Your task to perform on an android device: choose inbox layout in the gmail app Image 0: 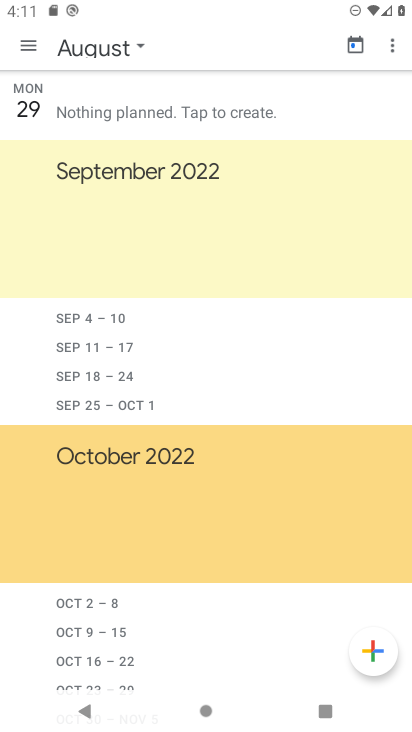
Step 0: press home button
Your task to perform on an android device: choose inbox layout in the gmail app Image 1: 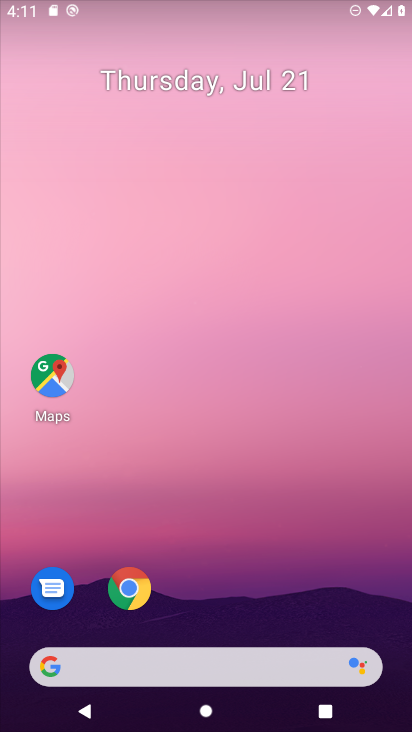
Step 1: drag from (215, 607) to (193, 10)
Your task to perform on an android device: choose inbox layout in the gmail app Image 2: 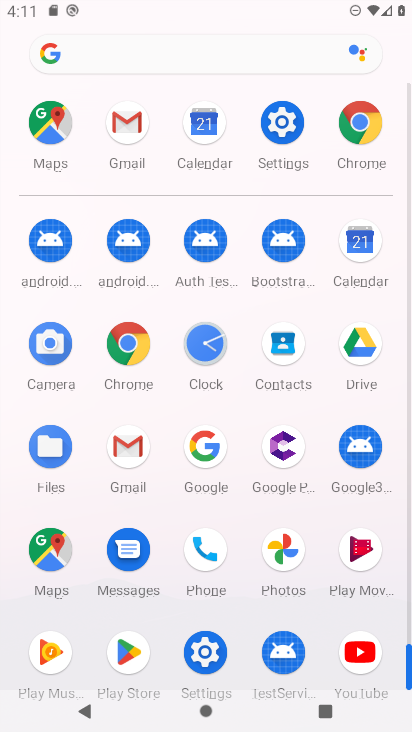
Step 2: click (136, 464)
Your task to perform on an android device: choose inbox layout in the gmail app Image 3: 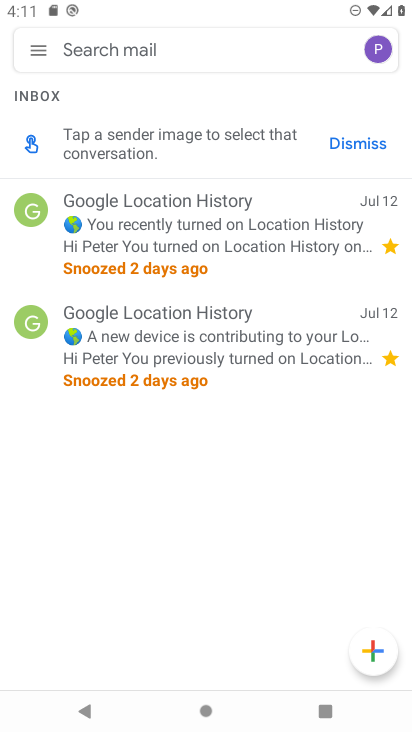
Step 3: click (35, 39)
Your task to perform on an android device: choose inbox layout in the gmail app Image 4: 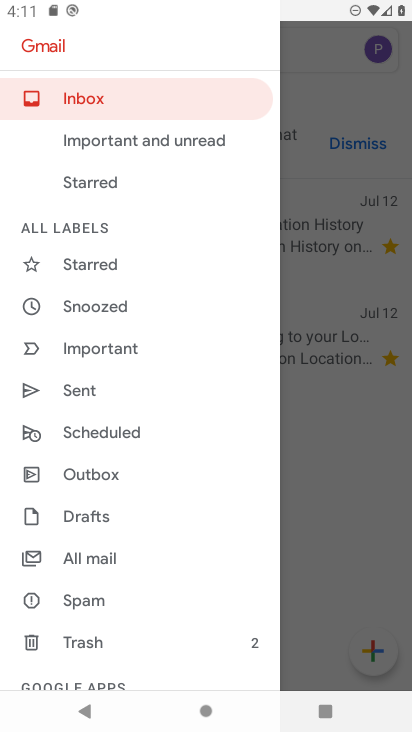
Step 4: task complete